Your task to perform on an android device: Go to Amazon Image 0: 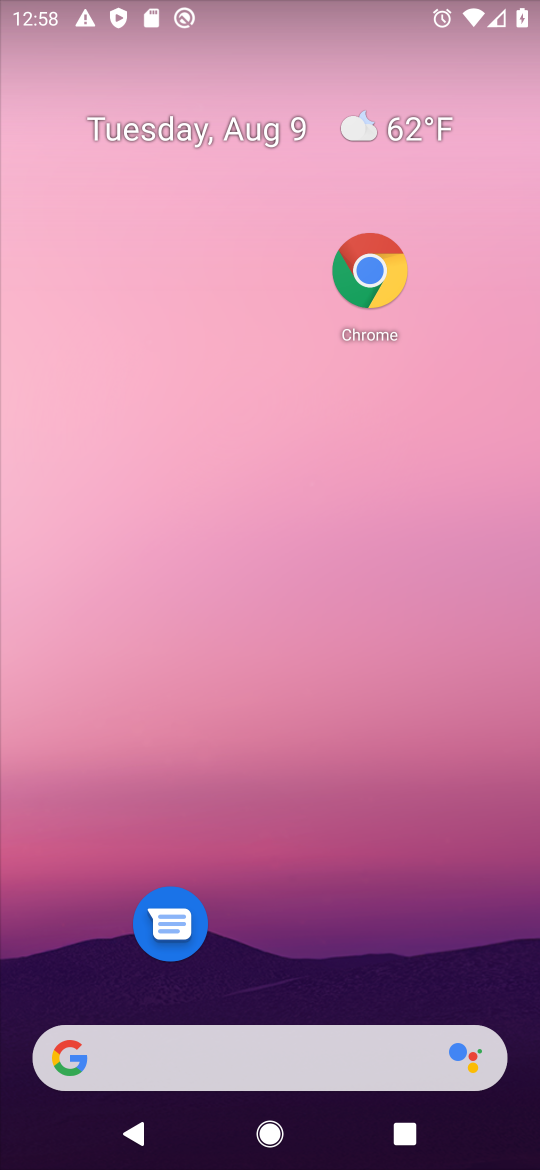
Step 0: drag from (358, 1002) to (318, 50)
Your task to perform on an android device: Go to Amazon Image 1: 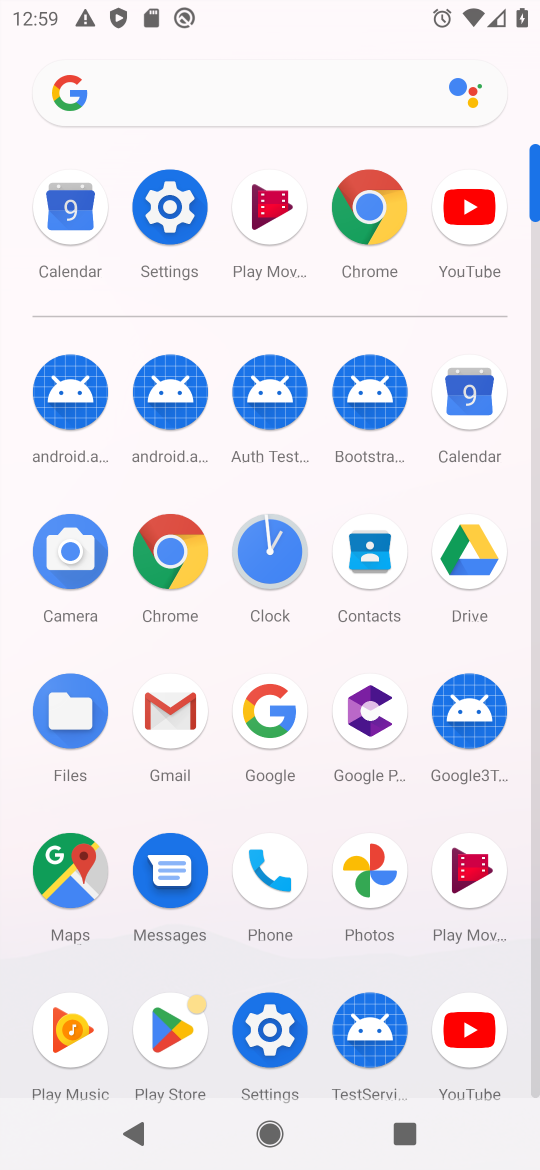
Step 1: click (340, 239)
Your task to perform on an android device: Go to Amazon Image 2: 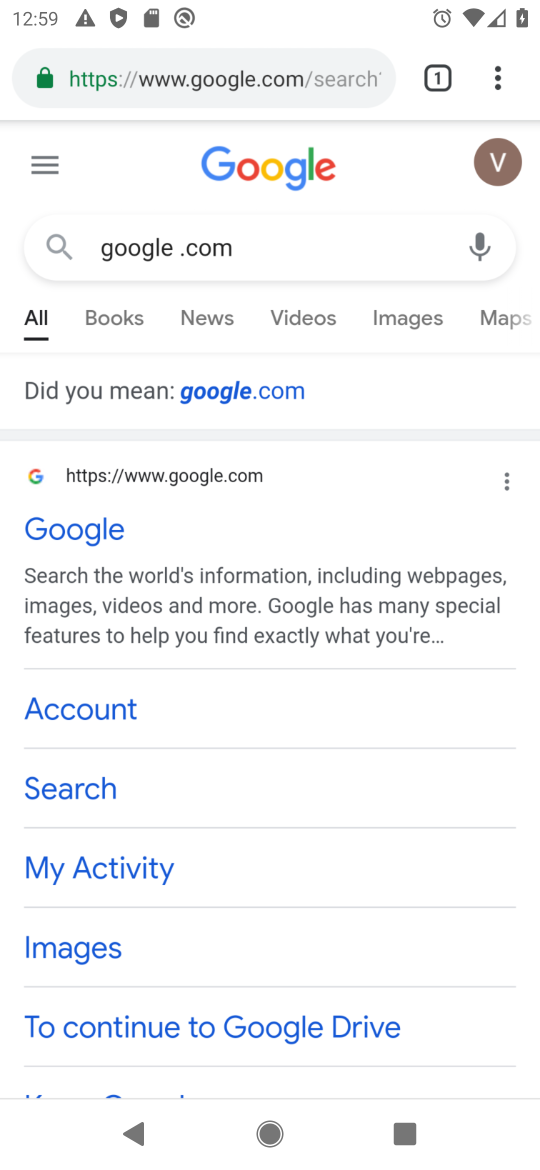
Step 2: task complete